Your task to perform on an android device: show emergency info Image 0: 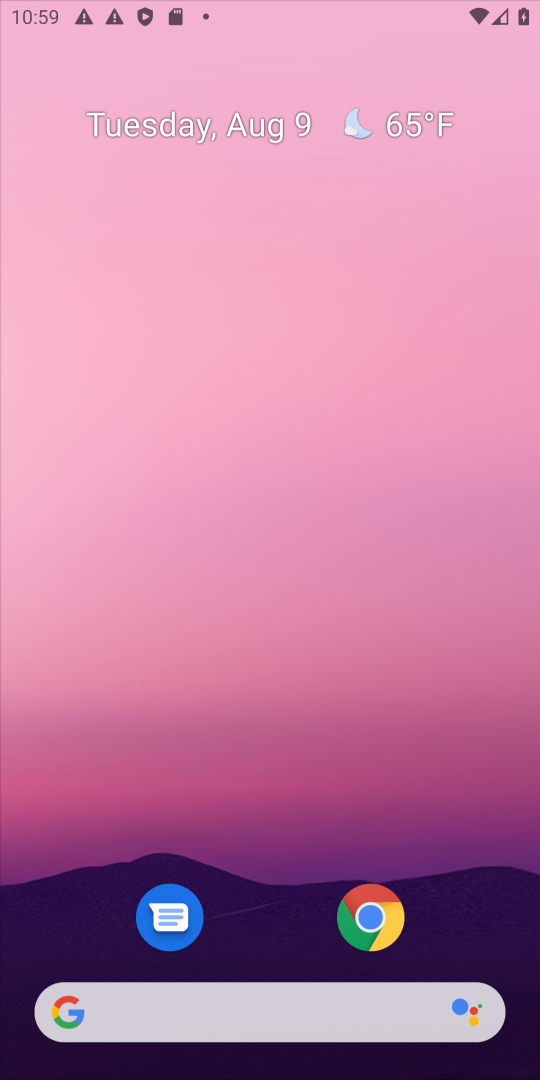
Step 0: drag from (253, 469) to (257, 16)
Your task to perform on an android device: show emergency info Image 1: 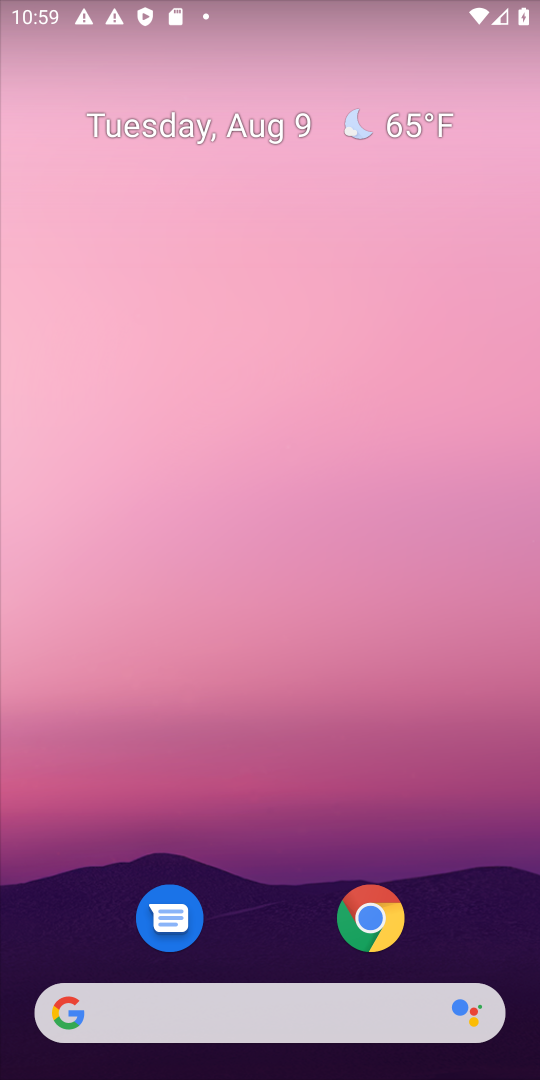
Step 1: drag from (285, 347) to (297, 176)
Your task to perform on an android device: show emergency info Image 2: 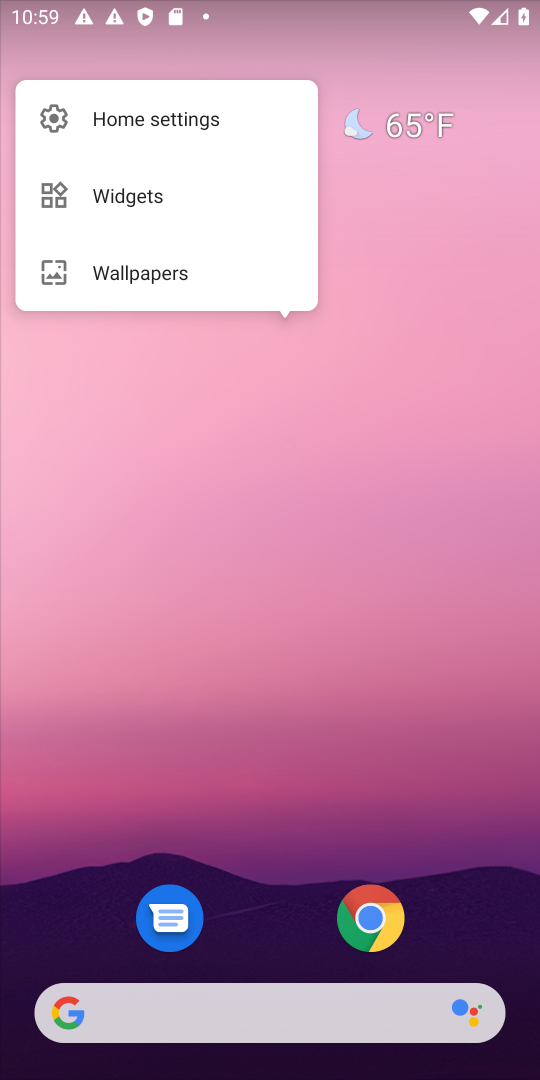
Step 2: click (278, 694)
Your task to perform on an android device: show emergency info Image 3: 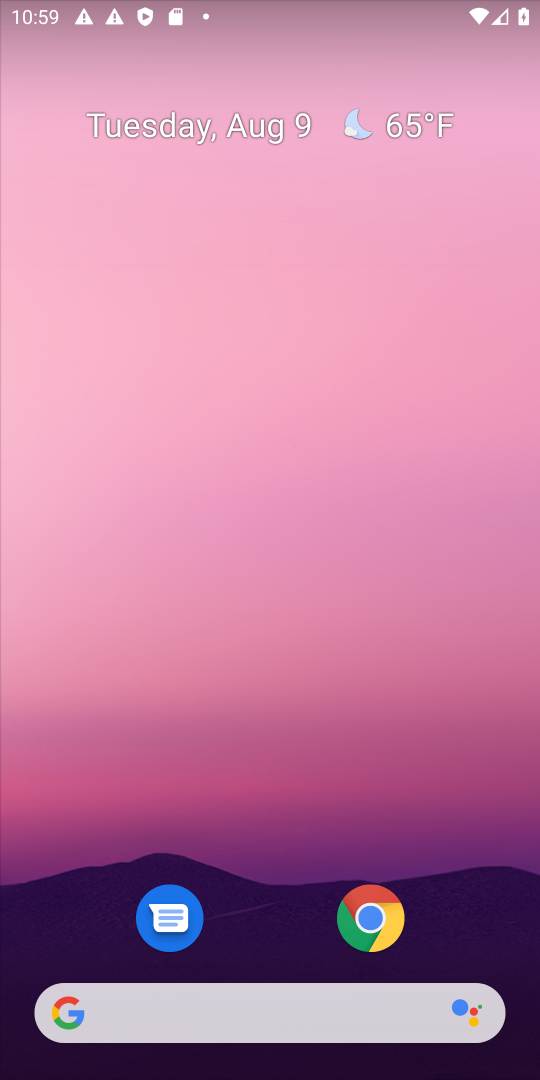
Step 3: drag from (286, 435) to (320, 88)
Your task to perform on an android device: show emergency info Image 4: 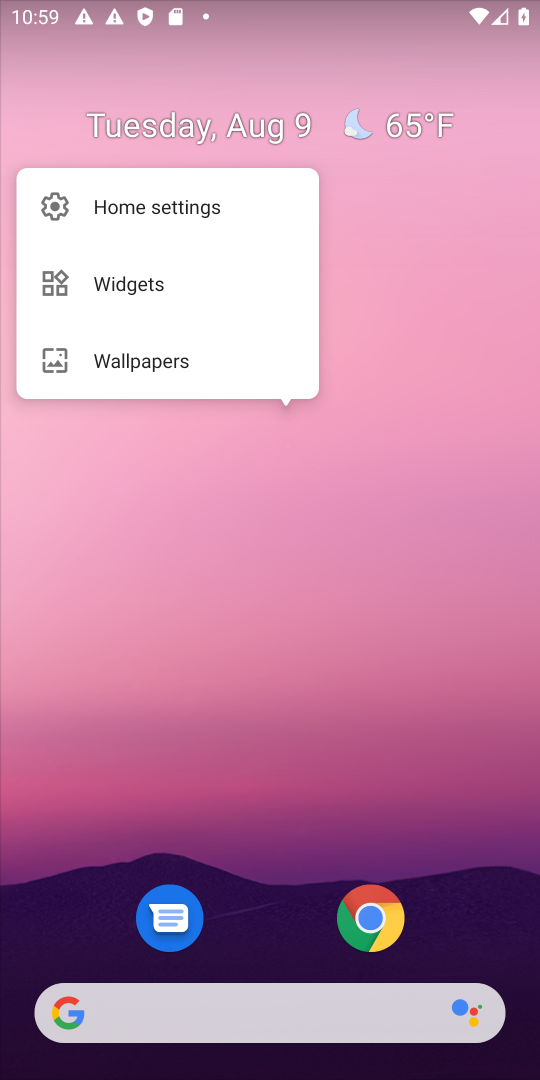
Step 4: click (414, 577)
Your task to perform on an android device: show emergency info Image 5: 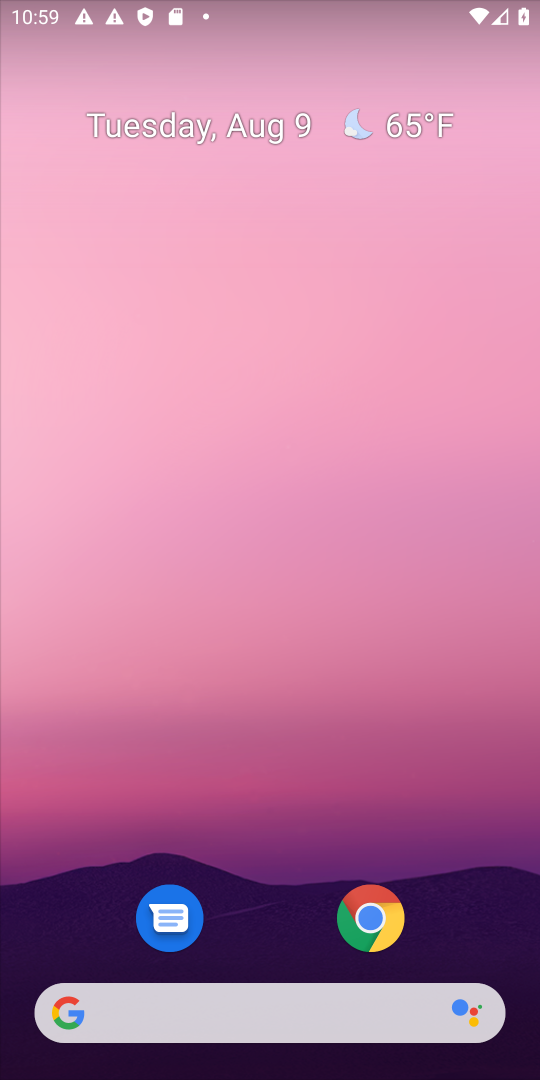
Step 5: click (384, 1075)
Your task to perform on an android device: show emergency info Image 6: 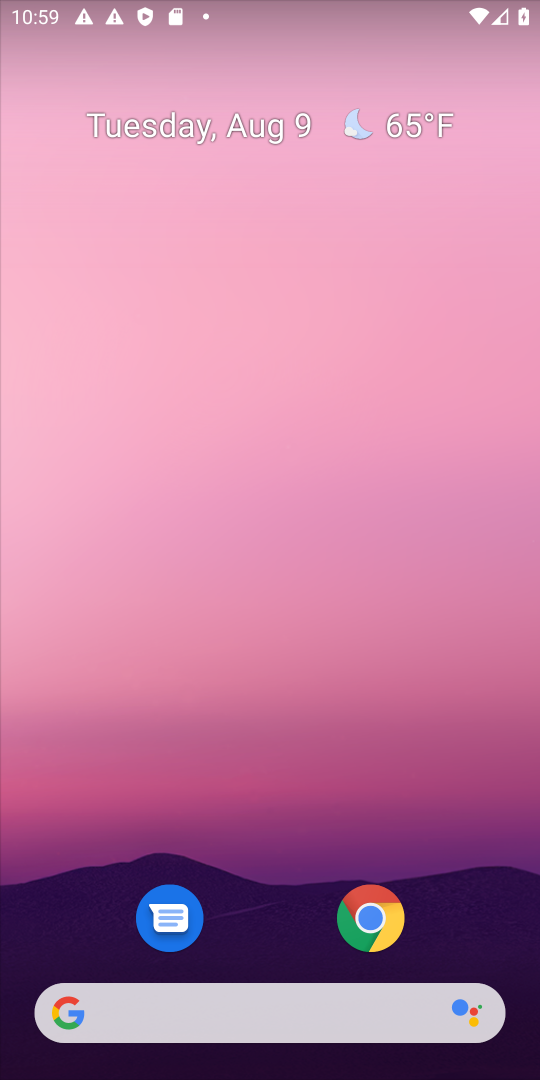
Step 6: drag from (277, 708) to (278, 167)
Your task to perform on an android device: show emergency info Image 7: 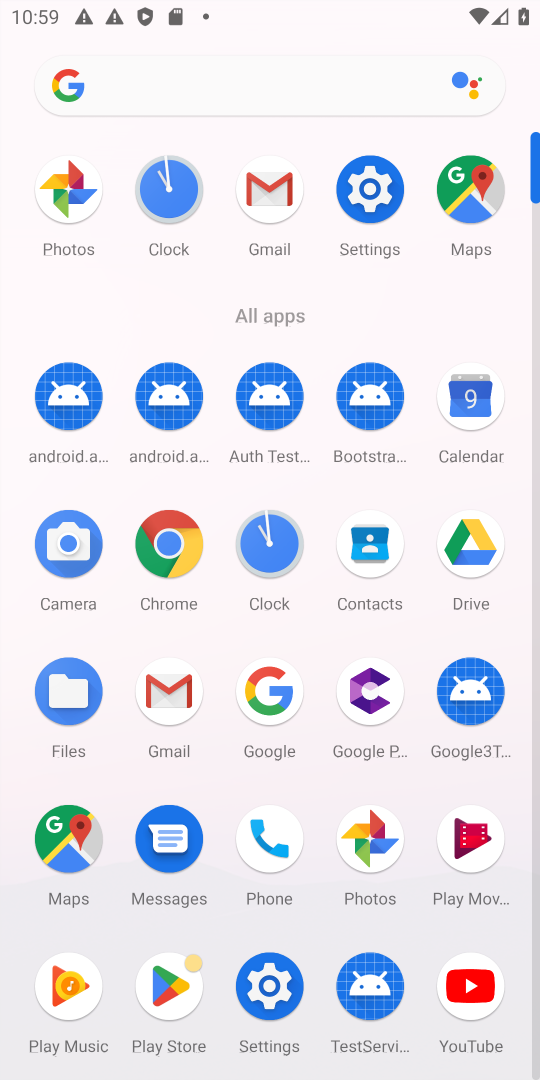
Step 7: click (273, 995)
Your task to perform on an android device: show emergency info Image 8: 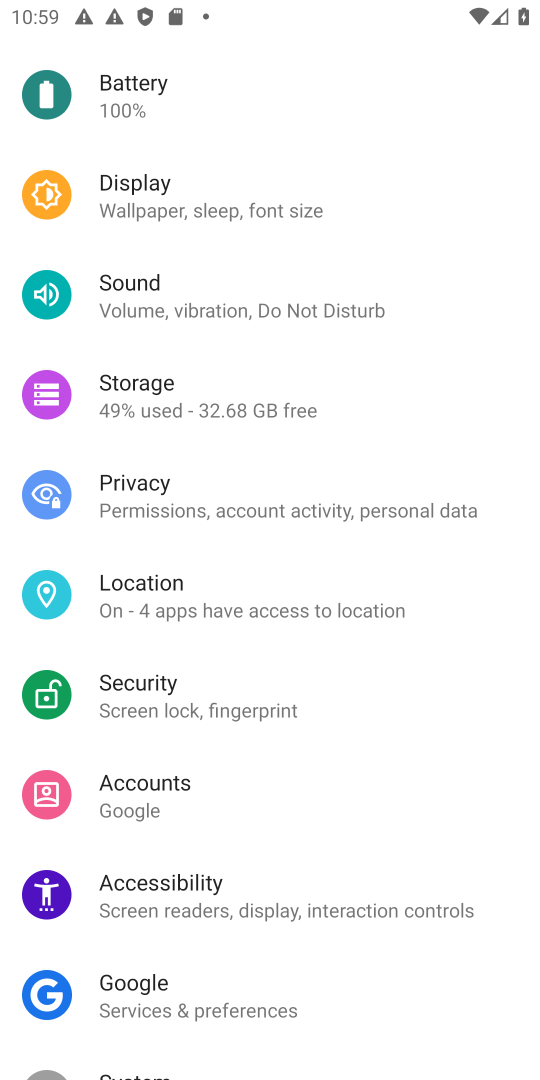
Step 8: drag from (419, 970) to (453, 236)
Your task to perform on an android device: show emergency info Image 9: 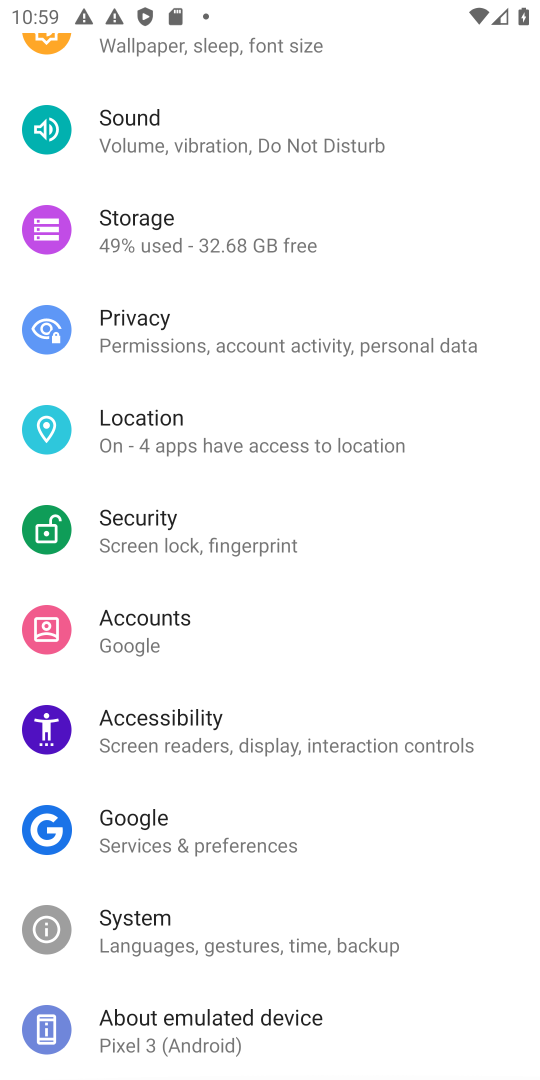
Step 9: click (227, 1026)
Your task to perform on an android device: show emergency info Image 10: 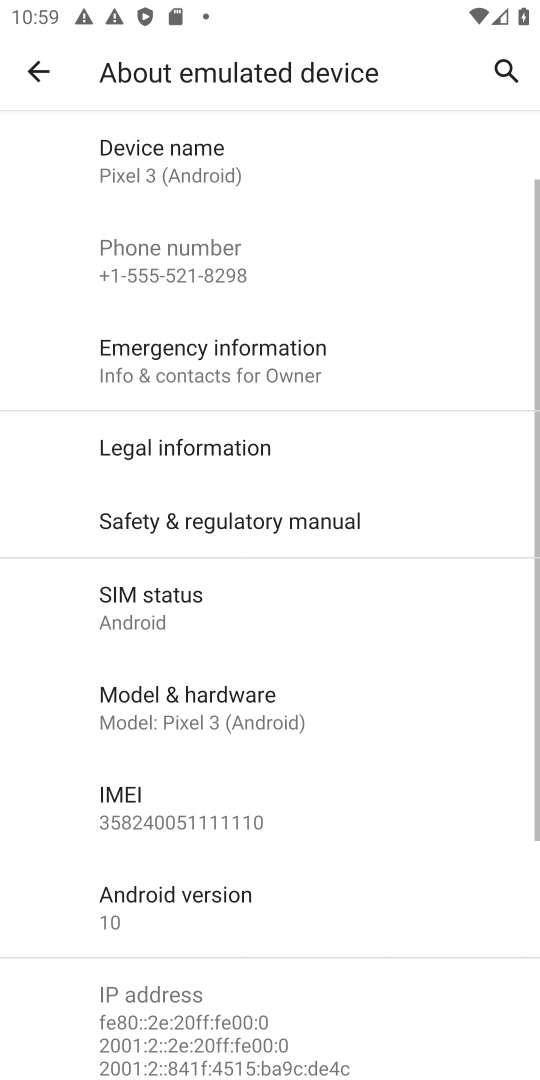
Step 10: click (147, 347)
Your task to perform on an android device: show emergency info Image 11: 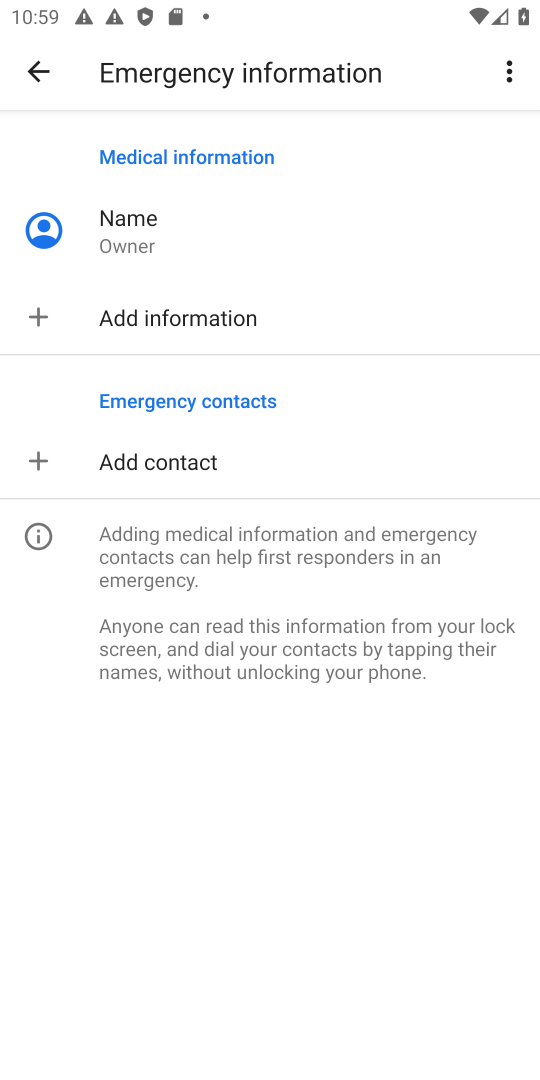
Step 11: task complete